Your task to perform on an android device: Open display settings Image 0: 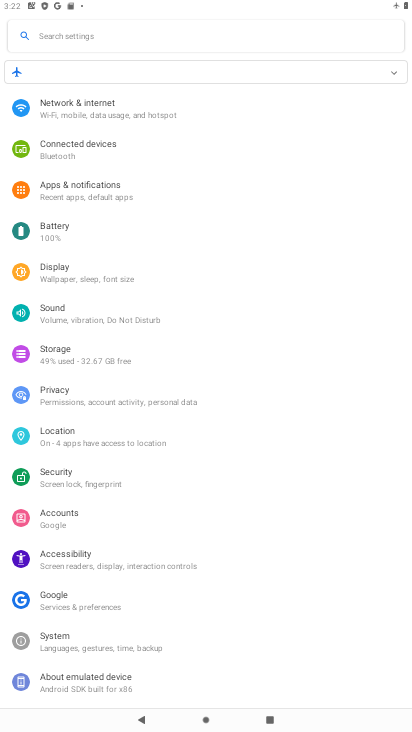
Step 0: click (59, 266)
Your task to perform on an android device: Open display settings Image 1: 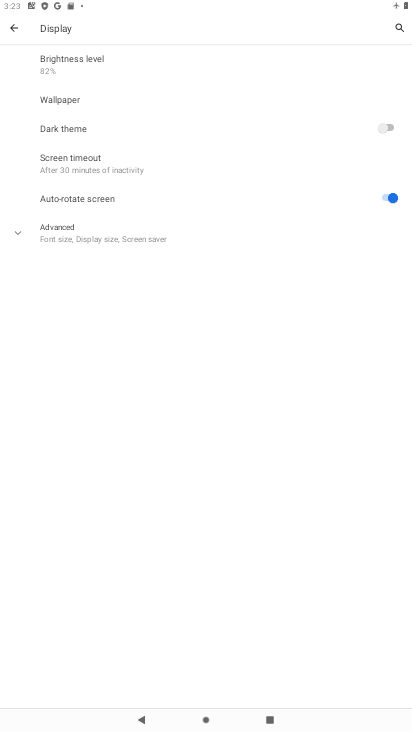
Step 1: task complete